Your task to perform on an android device: install app "Google Play Music" Image 0: 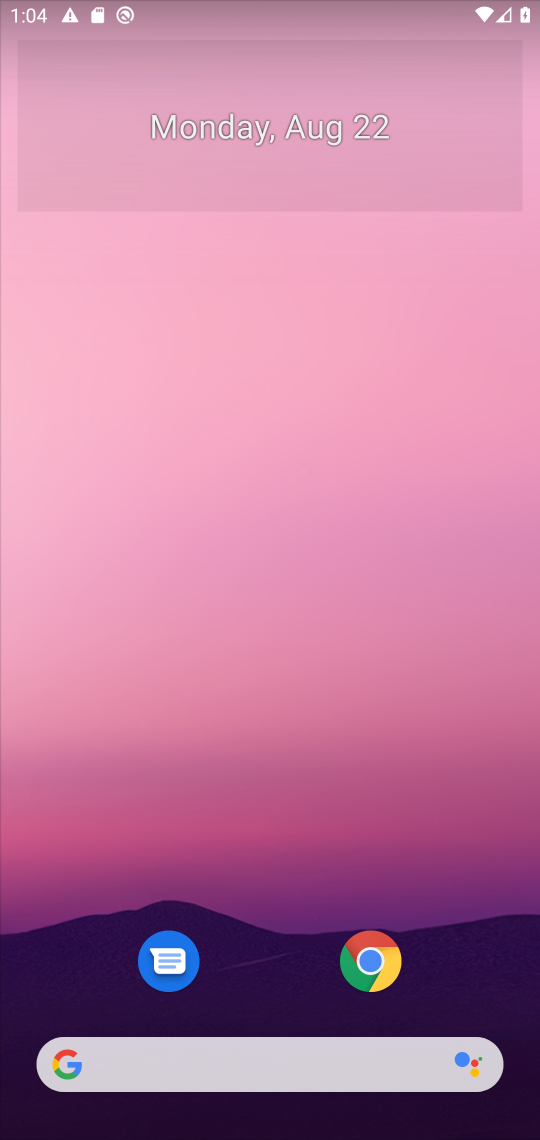
Step 0: press home button
Your task to perform on an android device: install app "Google Play Music" Image 1: 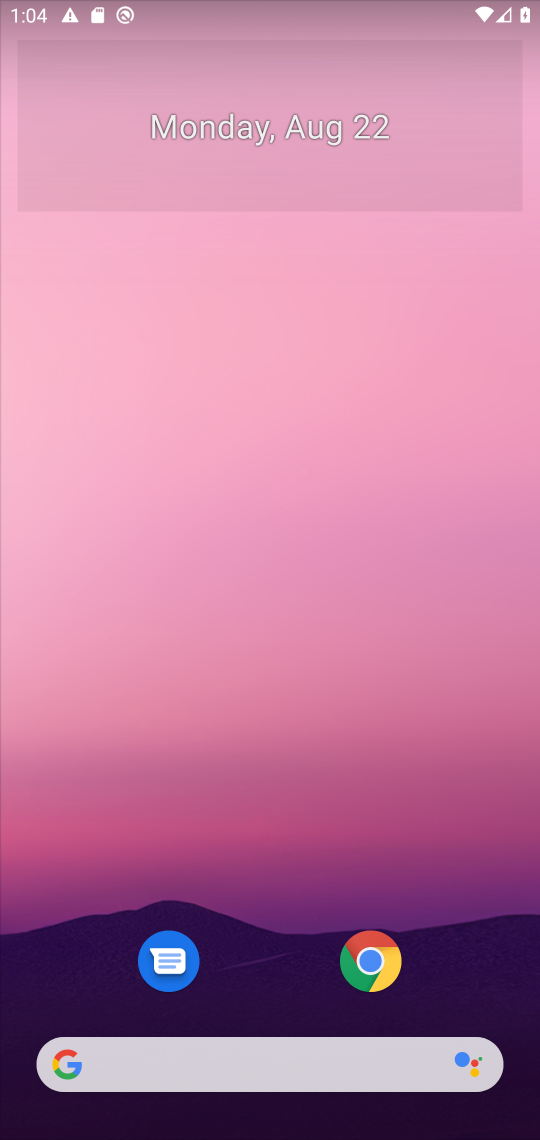
Step 1: drag from (460, 929) to (446, 220)
Your task to perform on an android device: install app "Google Play Music" Image 2: 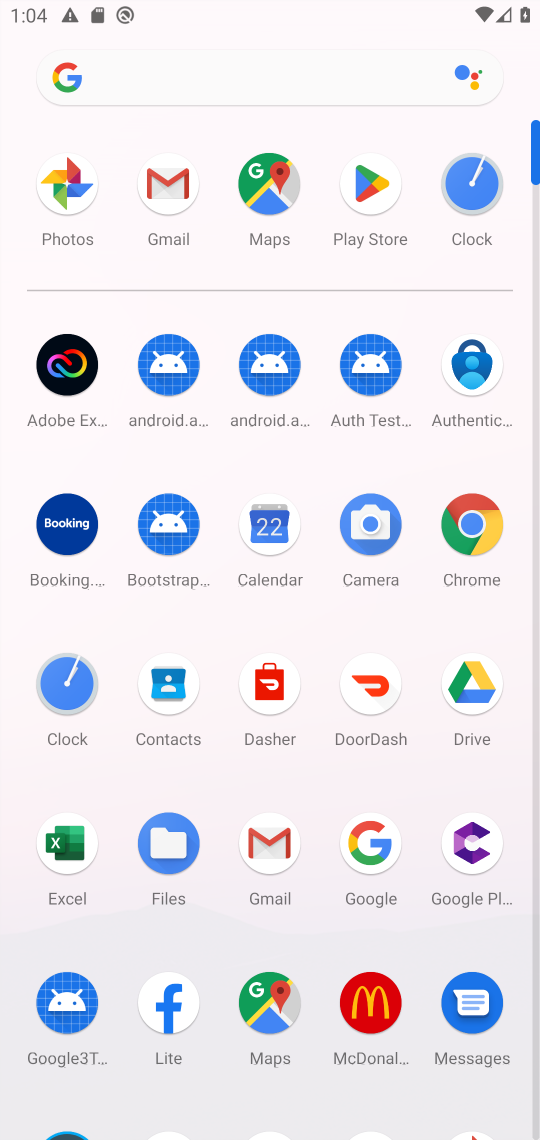
Step 2: click (374, 183)
Your task to perform on an android device: install app "Google Play Music" Image 3: 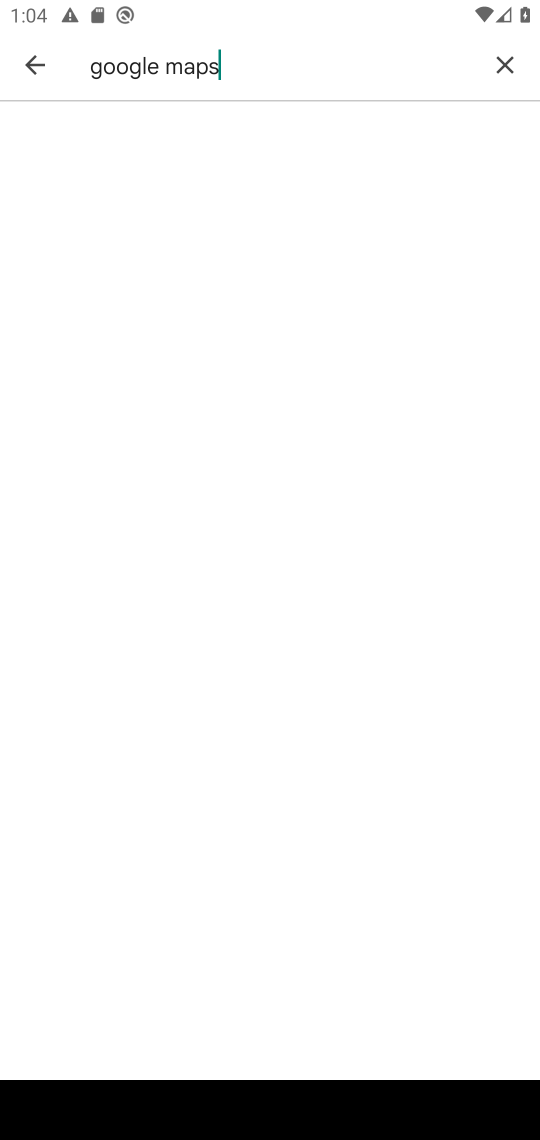
Step 3: press back button
Your task to perform on an android device: install app "Google Play Music" Image 4: 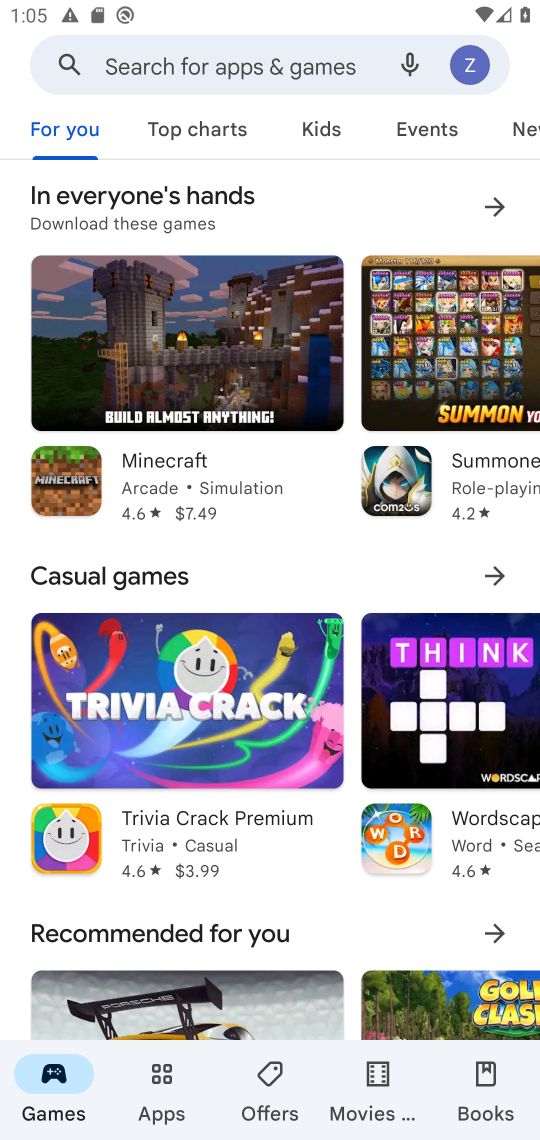
Step 4: click (317, 61)
Your task to perform on an android device: install app "Google Play Music" Image 5: 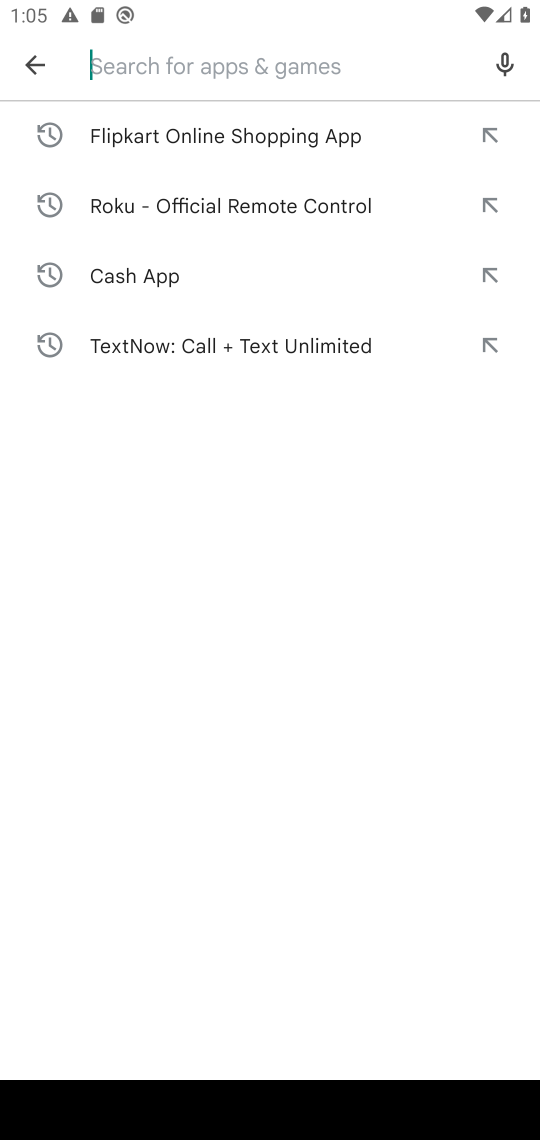
Step 5: type "Google Play Music"
Your task to perform on an android device: install app "Google Play Music" Image 6: 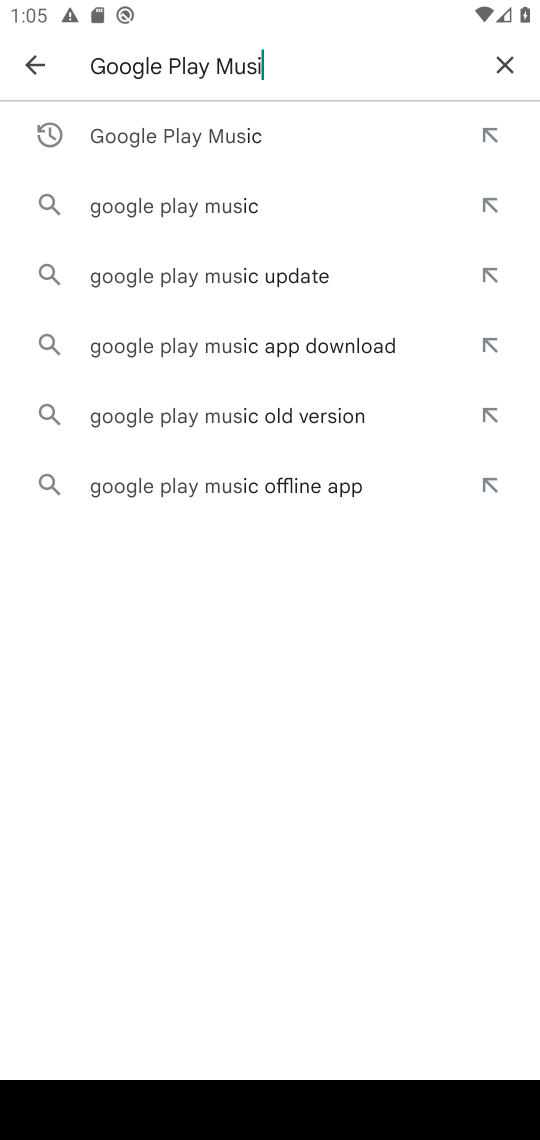
Step 6: press enter
Your task to perform on an android device: install app "Google Play Music" Image 7: 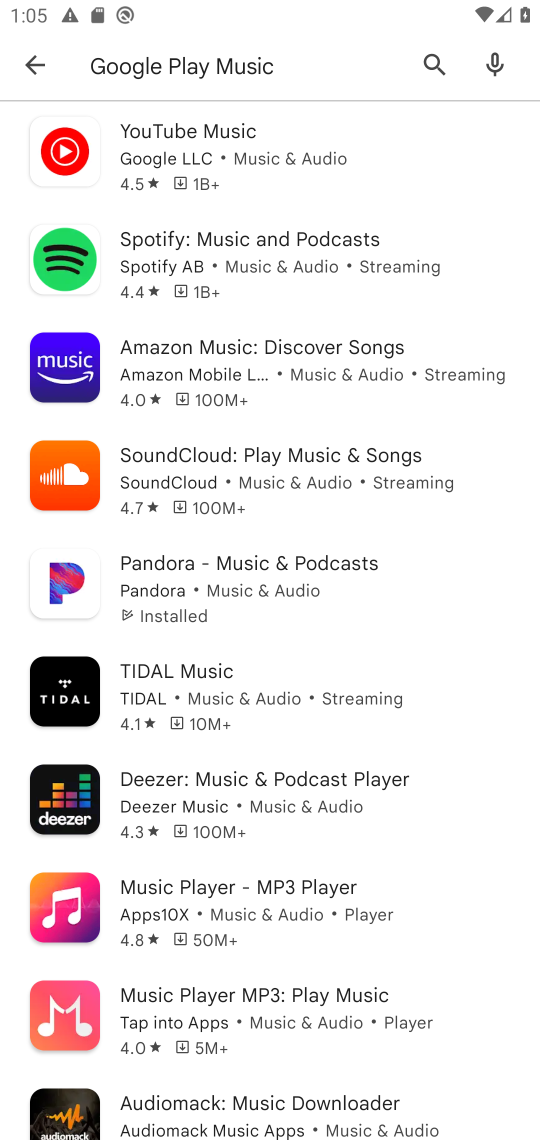
Step 7: click (288, 156)
Your task to perform on an android device: install app "Google Play Music" Image 8: 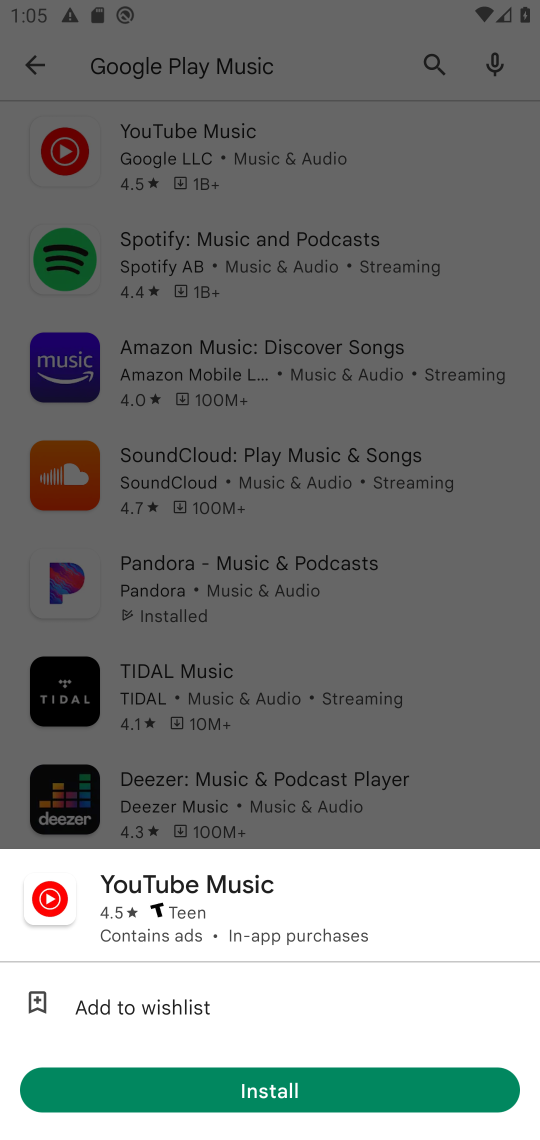
Step 8: click (239, 1081)
Your task to perform on an android device: install app "Google Play Music" Image 9: 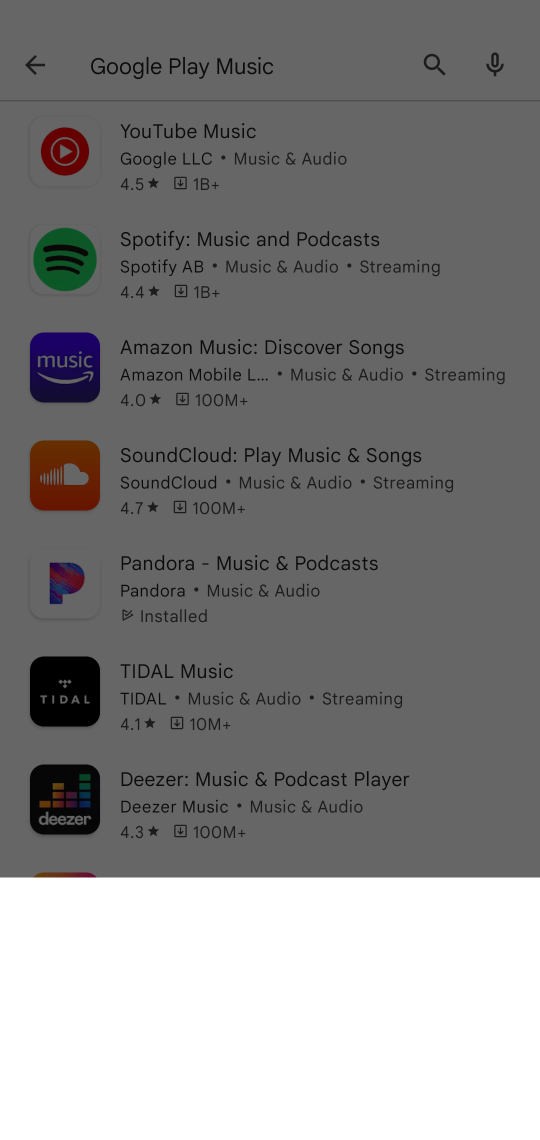
Step 9: task complete